Your task to perform on an android device: change your default location settings in chrome Image 0: 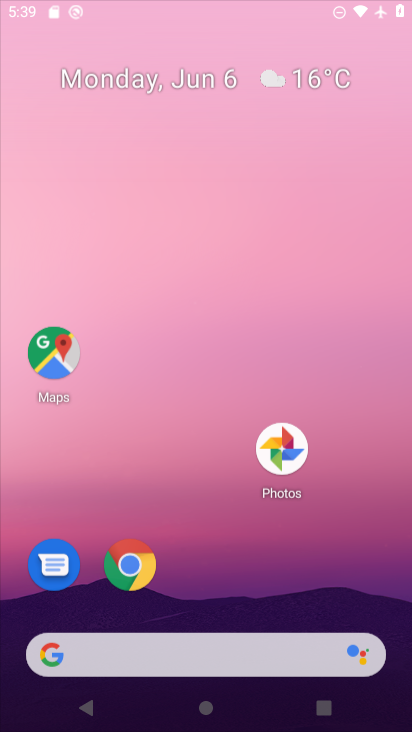
Step 0: click (162, 84)
Your task to perform on an android device: change your default location settings in chrome Image 1: 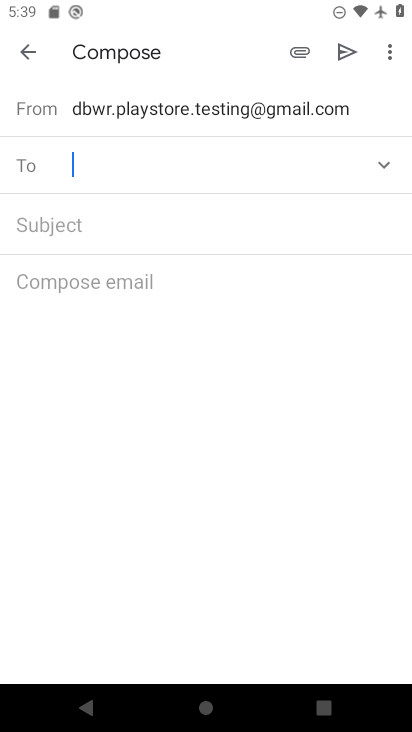
Step 1: click (28, 47)
Your task to perform on an android device: change your default location settings in chrome Image 2: 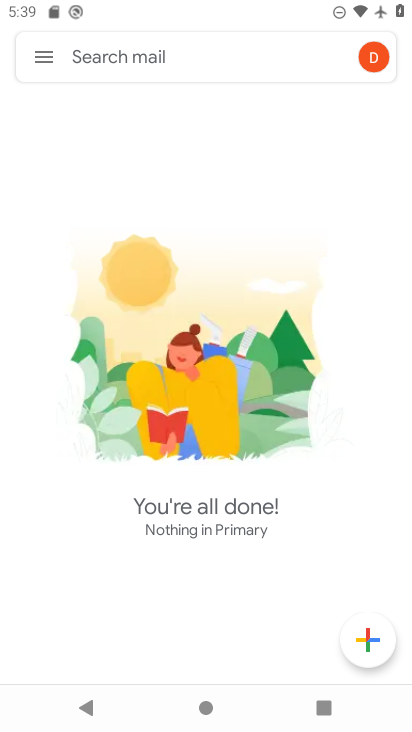
Step 2: press back button
Your task to perform on an android device: change your default location settings in chrome Image 3: 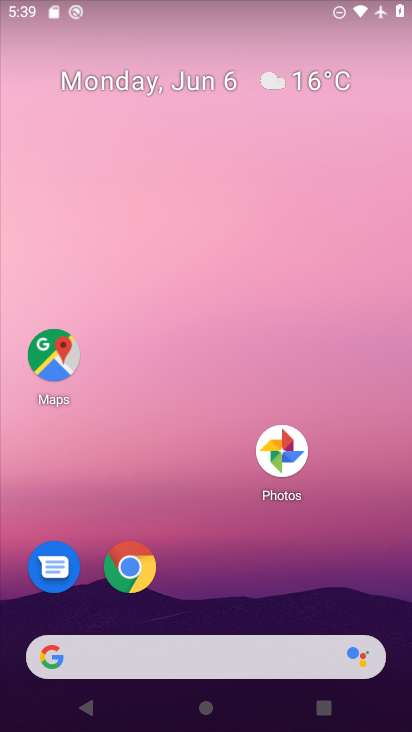
Step 3: drag from (264, 718) to (137, 189)
Your task to perform on an android device: change your default location settings in chrome Image 4: 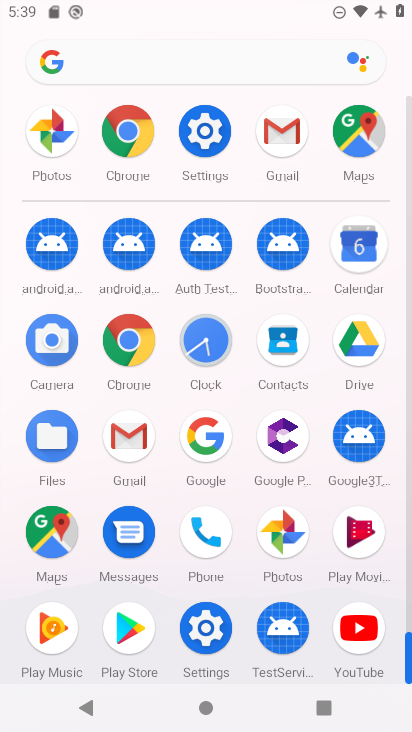
Step 4: click (123, 132)
Your task to perform on an android device: change your default location settings in chrome Image 5: 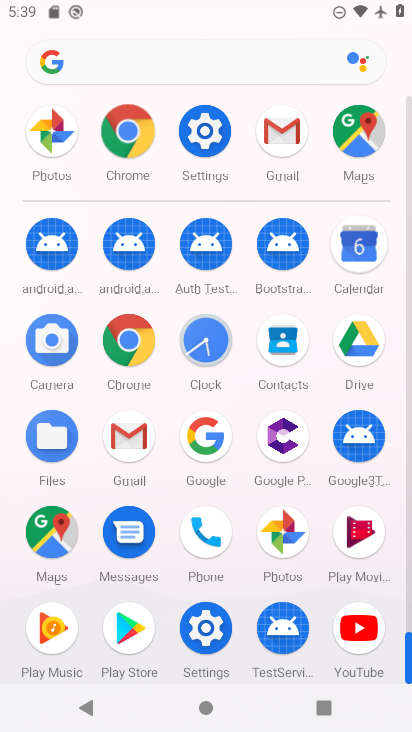
Step 5: click (122, 131)
Your task to perform on an android device: change your default location settings in chrome Image 6: 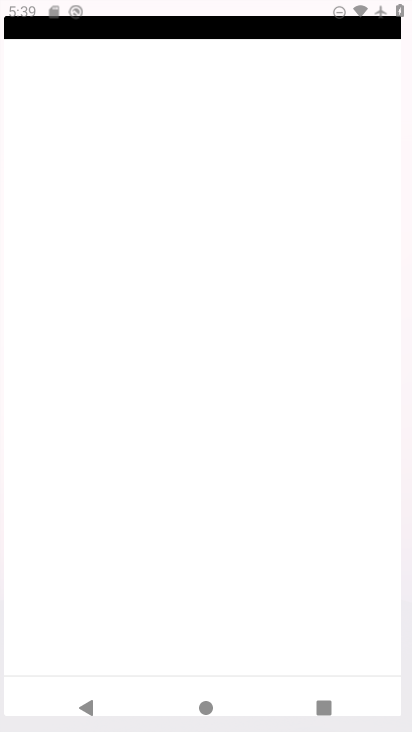
Step 6: click (127, 131)
Your task to perform on an android device: change your default location settings in chrome Image 7: 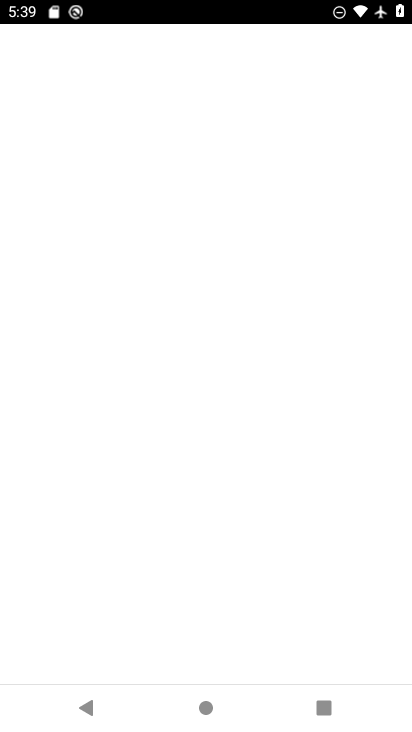
Step 7: click (127, 131)
Your task to perform on an android device: change your default location settings in chrome Image 8: 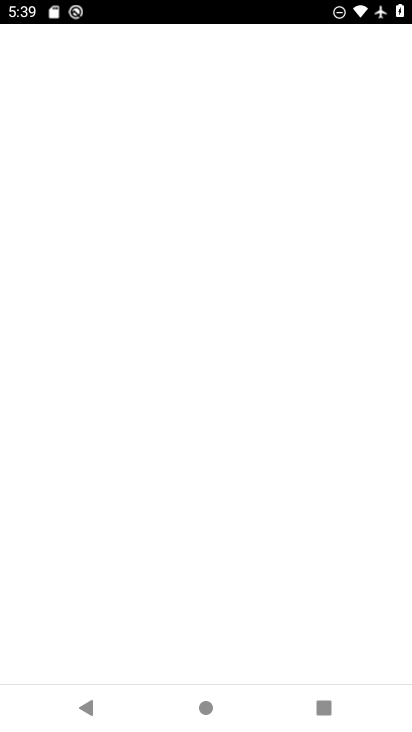
Step 8: click (125, 130)
Your task to perform on an android device: change your default location settings in chrome Image 9: 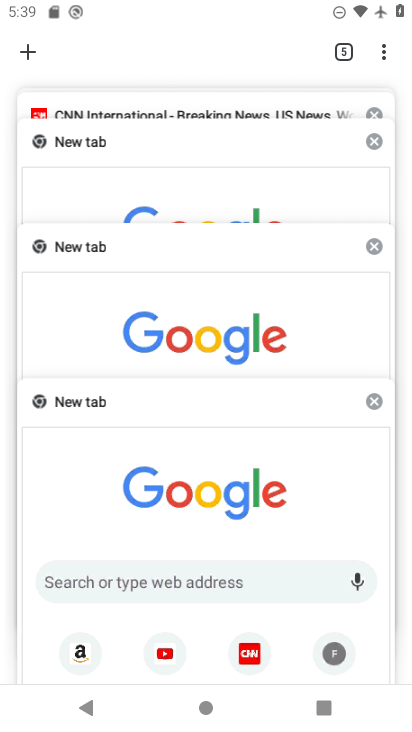
Step 9: press back button
Your task to perform on an android device: change your default location settings in chrome Image 10: 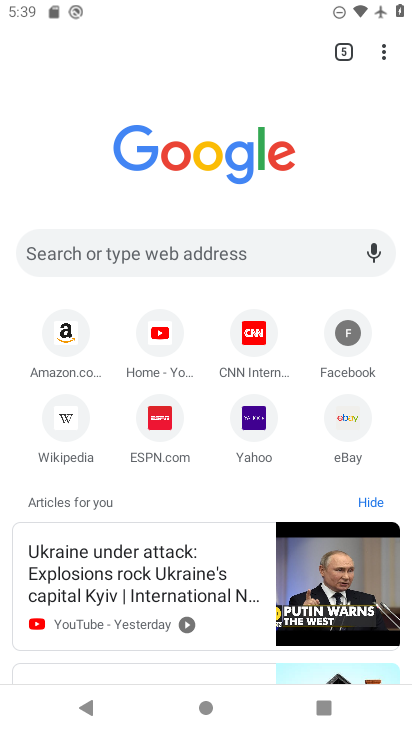
Step 10: drag from (385, 49) to (184, 450)
Your task to perform on an android device: change your default location settings in chrome Image 11: 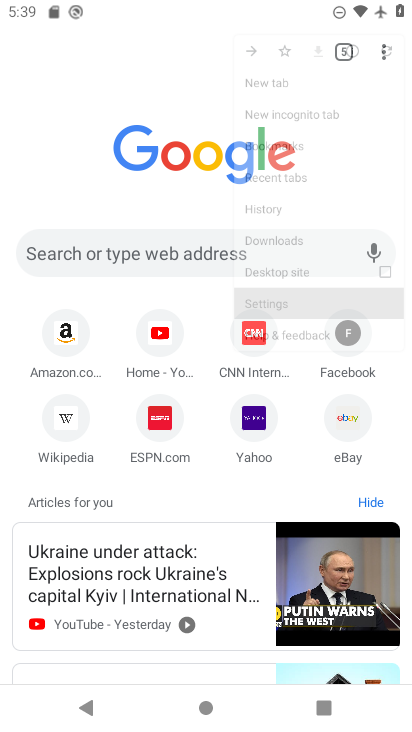
Step 11: click (184, 450)
Your task to perform on an android device: change your default location settings in chrome Image 12: 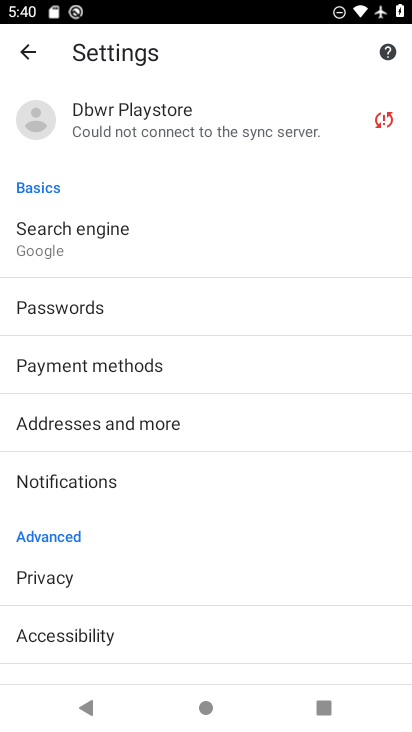
Step 12: drag from (109, 534) to (93, 178)
Your task to perform on an android device: change your default location settings in chrome Image 13: 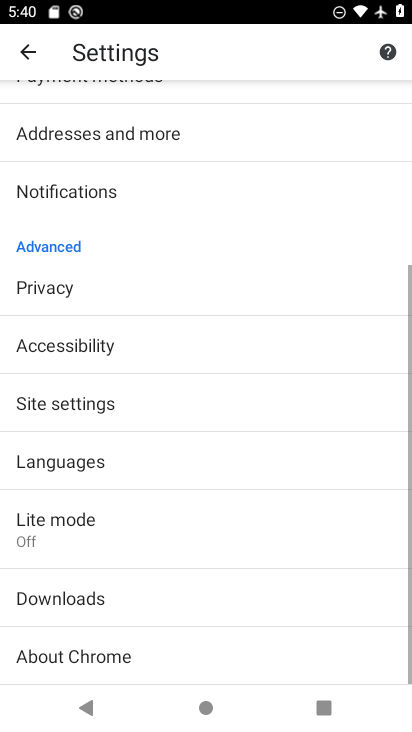
Step 13: drag from (131, 471) to (168, 202)
Your task to perform on an android device: change your default location settings in chrome Image 14: 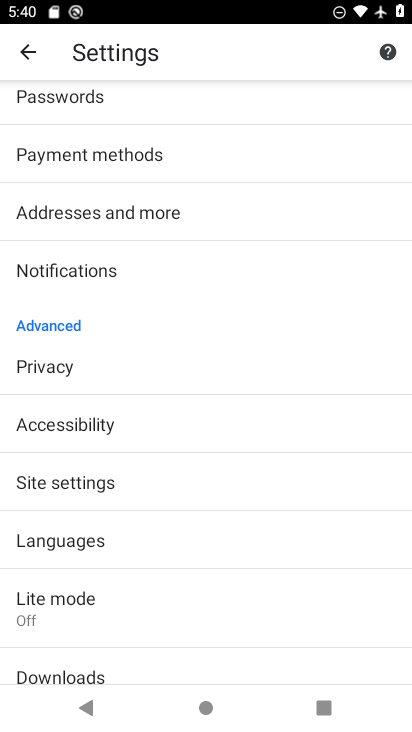
Step 14: click (63, 481)
Your task to perform on an android device: change your default location settings in chrome Image 15: 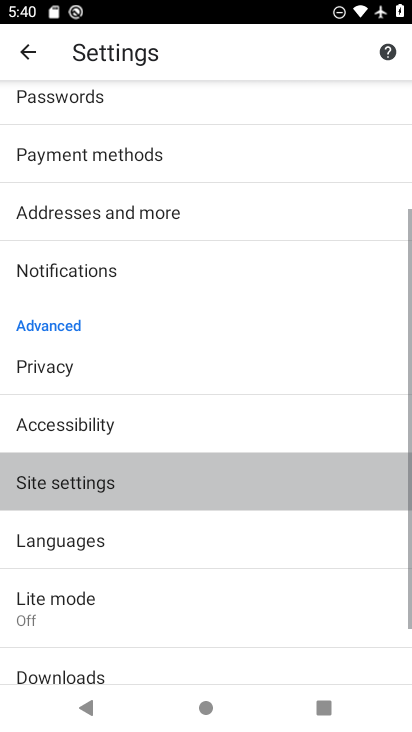
Step 15: click (62, 480)
Your task to perform on an android device: change your default location settings in chrome Image 16: 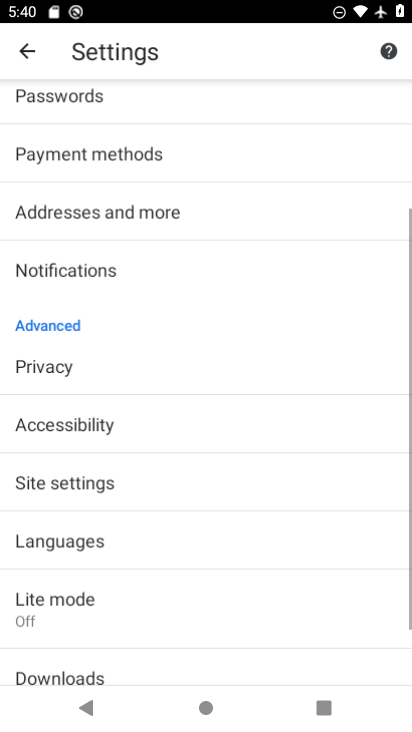
Step 16: click (62, 480)
Your task to perform on an android device: change your default location settings in chrome Image 17: 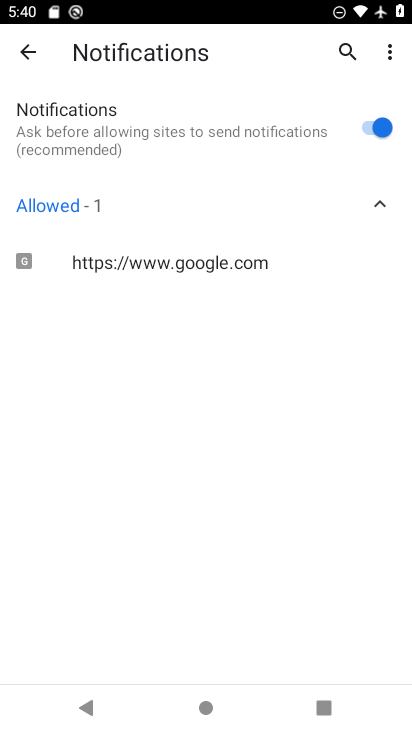
Step 17: click (27, 61)
Your task to perform on an android device: change your default location settings in chrome Image 18: 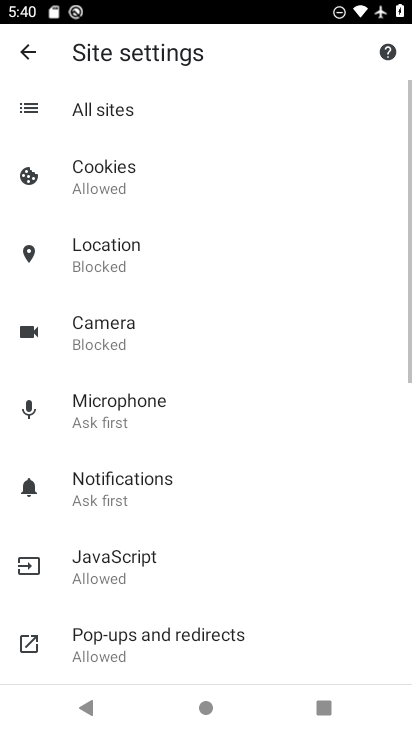
Step 18: click (108, 249)
Your task to perform on an android device: change your default location settings in chrome Image 19: 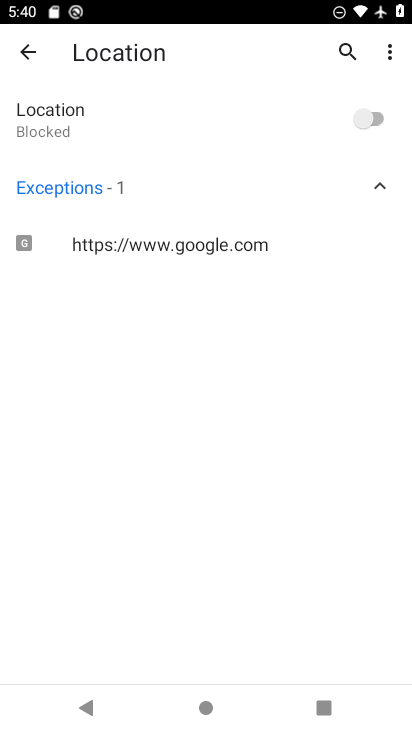
Step 19: click (365, 111)
Your task to perform on an android device: change your default location settings in chrome Image 20: 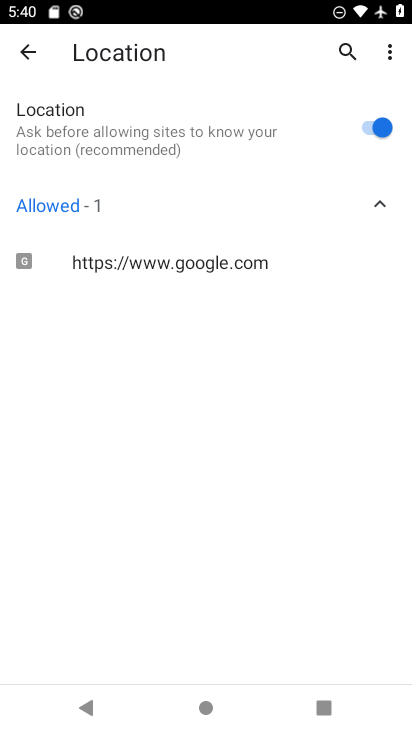
Step 20: task complete